Your task to perform on an android device: toggle wifi Image 0: 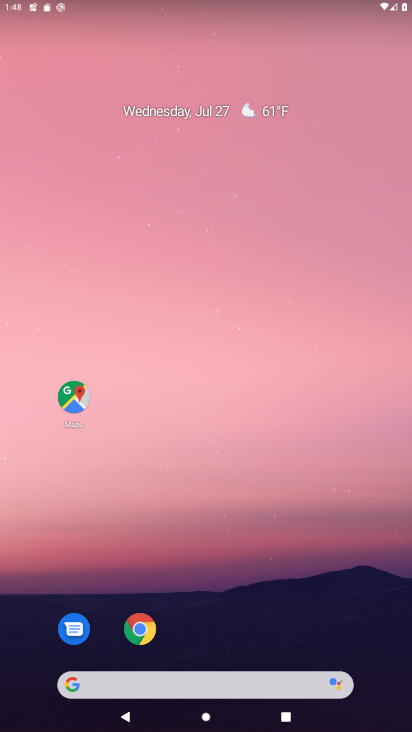
Step 0: drag from (175, 677) to (187, 247)
Your task to perform on an android device: toggle wifi Image 1: 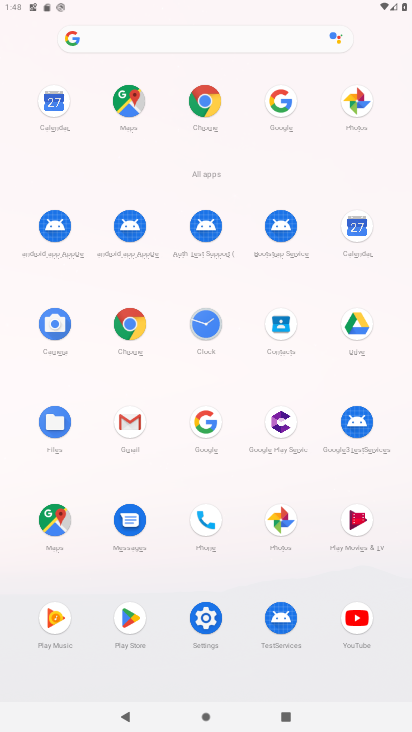
Step 1: click (197, 631)
Your task to perform on an android device: toggle wifi Image 2: 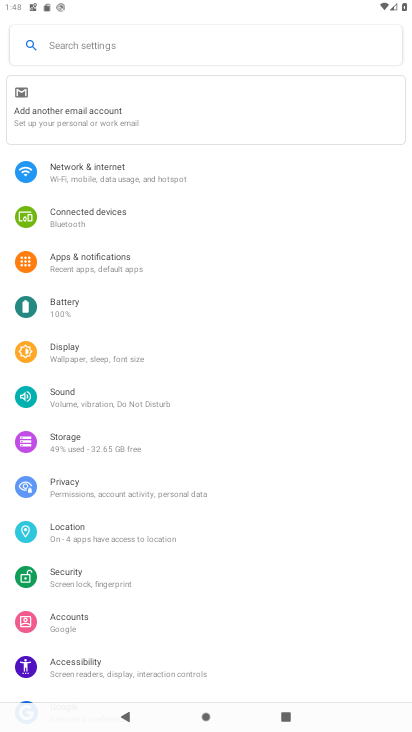
Step 2: click (94, 158)
Your task to perform on an android device: toggle wifi Image 3: 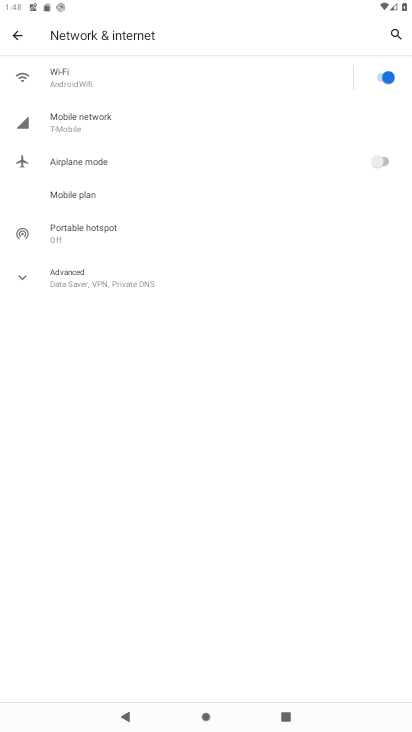
Step 3: click (379, 82)
Your task to perform on an android device: toggle wifi Image 4: 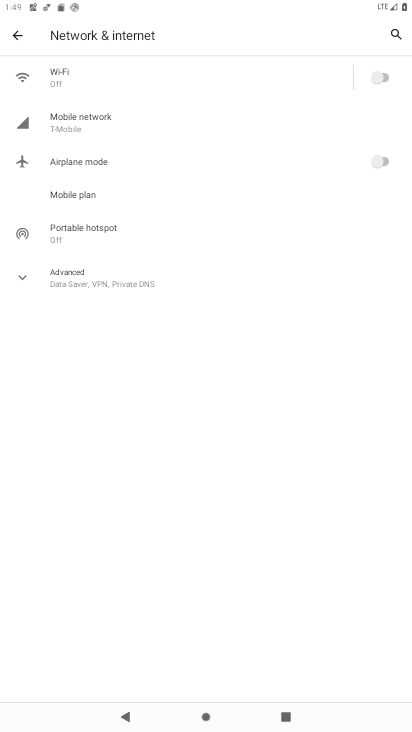
Step 4: task complete